Your task to perform on an android device: What's the weather? Image 0: 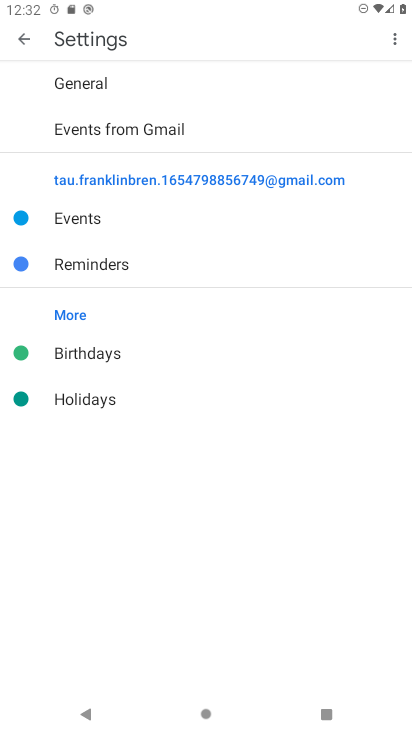
Step 0: press home button
Your task to perform on an android device: What's the weather? Image 1: 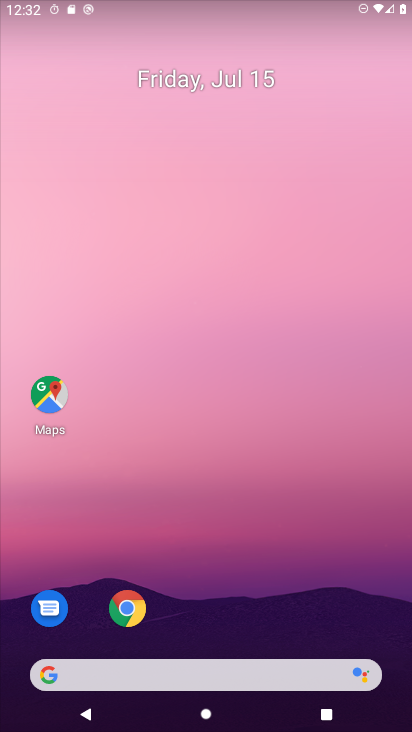
Step 1: drag from (181, 654) to (207, 20)
Your task to perform on an android device: What's the weather? Image 2: 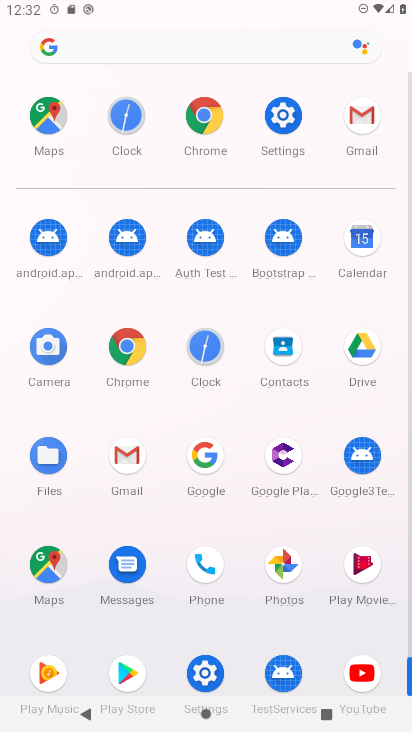
Step 2: click (138, 345)
Your task to perform on an android device: What's the weather? Image 3: 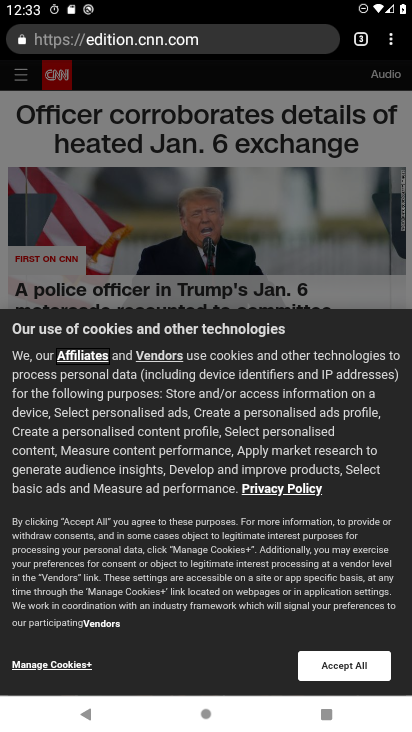
Step 3: drag from (386, 25) to (390, 80)
Your task to perform on an android device: What's the weather? Image 4: 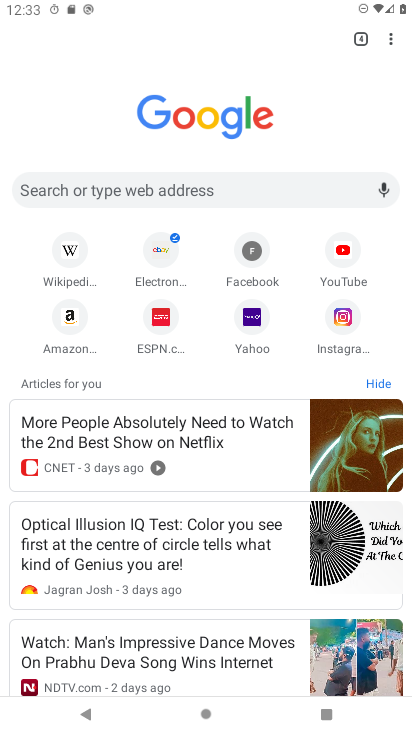
Step 4: click (233, 188)
Your task to perform on an android device: What's the weather? Image 5: 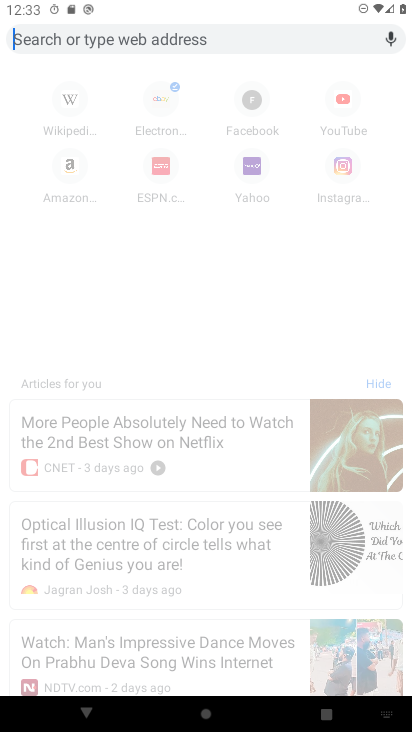
Step 5: type "whats the weather"
Your task to perform on an android device: What's the weather? Image 6: 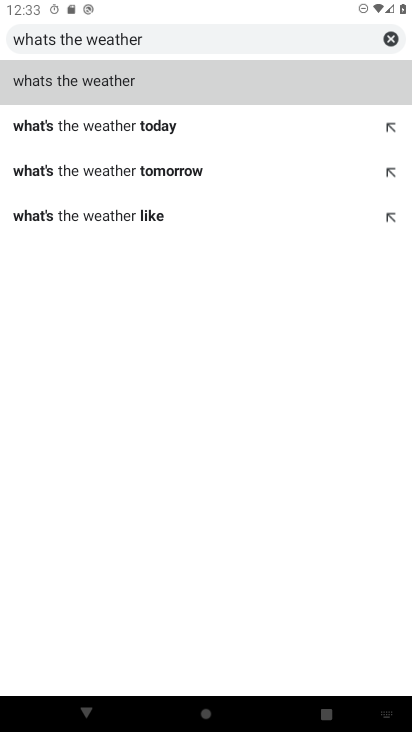
Step 6: click (96, 92)
Your task to perform on an android device: What's the weather? Image 7: 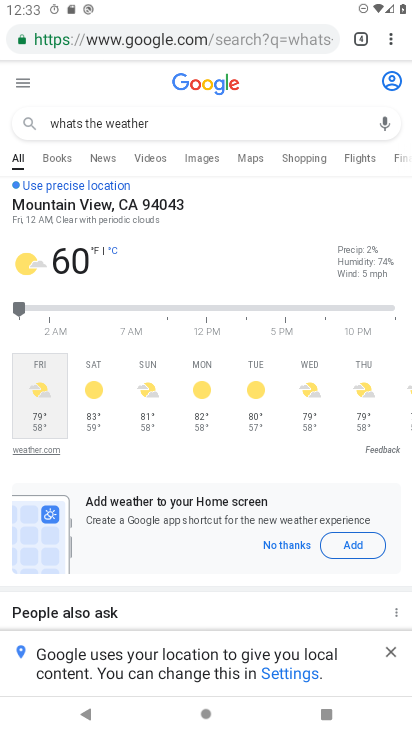
Step 7: task complete